Your task to perform on an android device: open a bookmark in the chrome app Image 0: 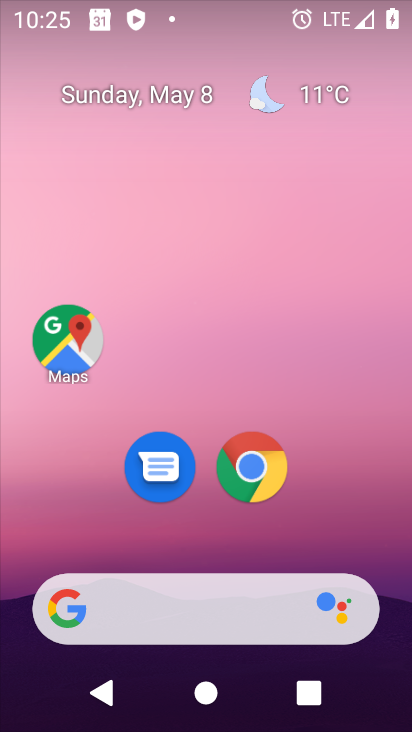
Step 0: click (252, 463)
Your task to perform on an android device: open a bookmark in the chrome app Image 1: 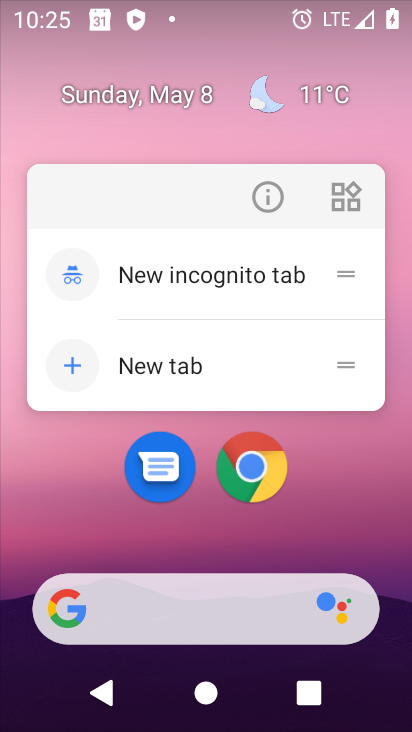
Step 1: click (267, 192)
Your task to perform on an android device: open a bookmark in the chrome app Image 2: 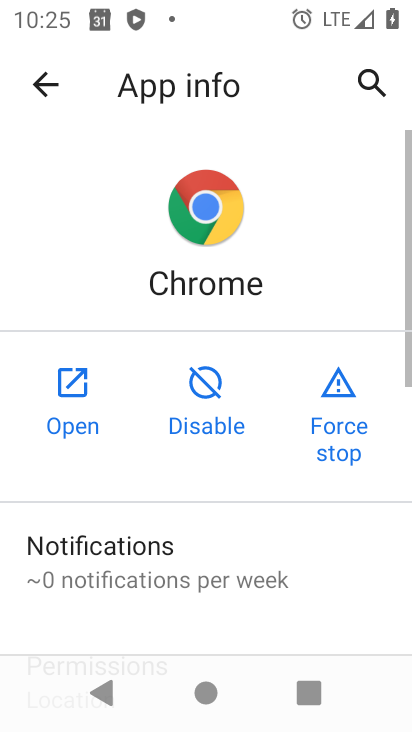
Step 2: click (75, 403)
Your task to perform on an android device: open a bookmark in the chrome app Image 3: 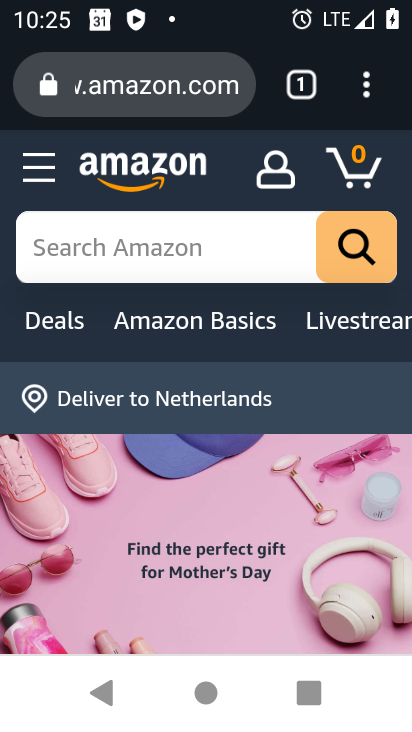
Step 3: click (358, 94)
Your task to perform on an android device: open a bookmark in the chrome app Image 4: 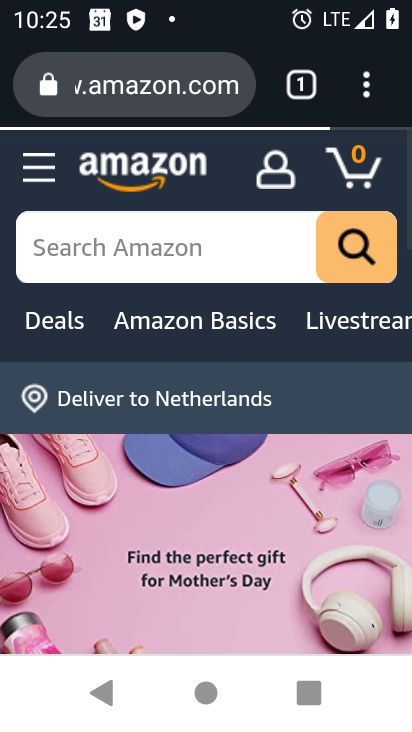
Step 4: click (358, 94)
Your task to perform on an android device: open a bookmark in the chrome app Image 5: 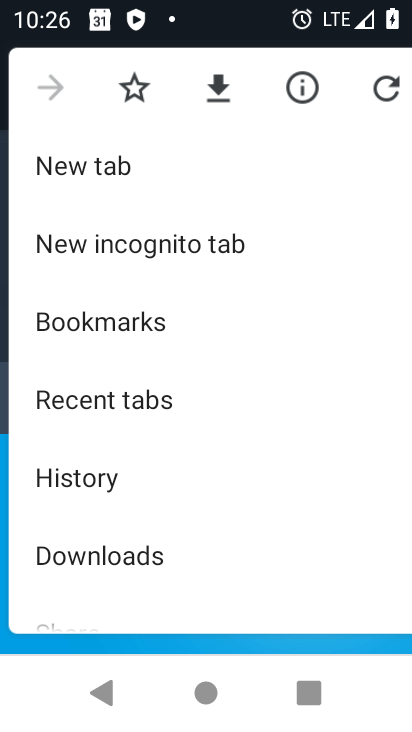
Step 5: click (133, 328)
Your task to perform on an android device: open a bookmark in the chrome app Image 6: 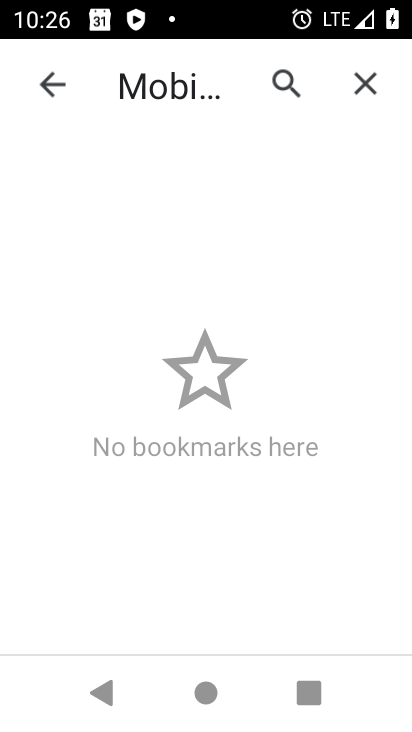
Step 6: task complete